Your task to perform on an android device: Go to calendar. Show me events next week Image 0: 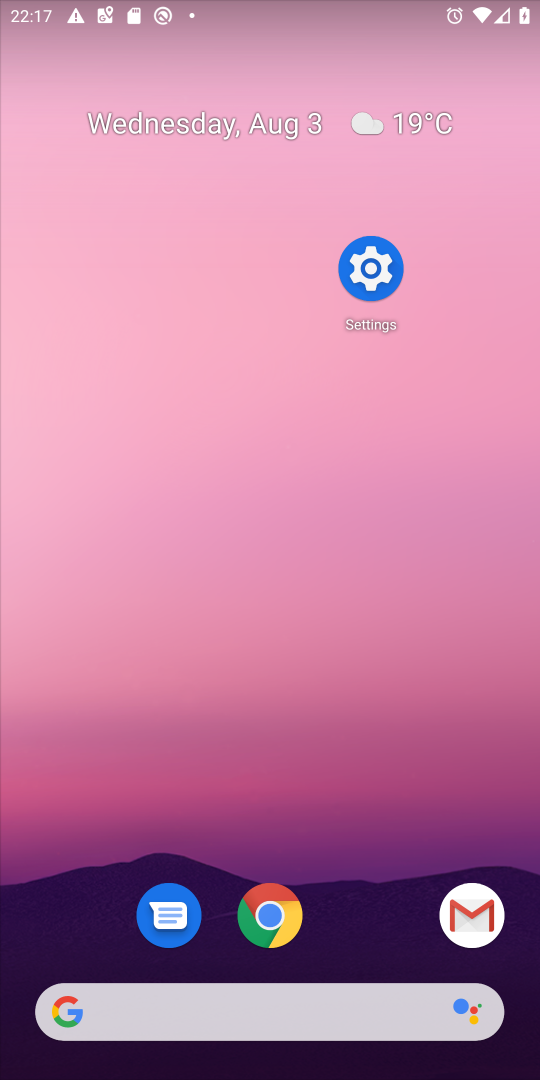
Step 0: press home button
Your task to perform on an android device: Go to calendar. Show me events next week Image 1: 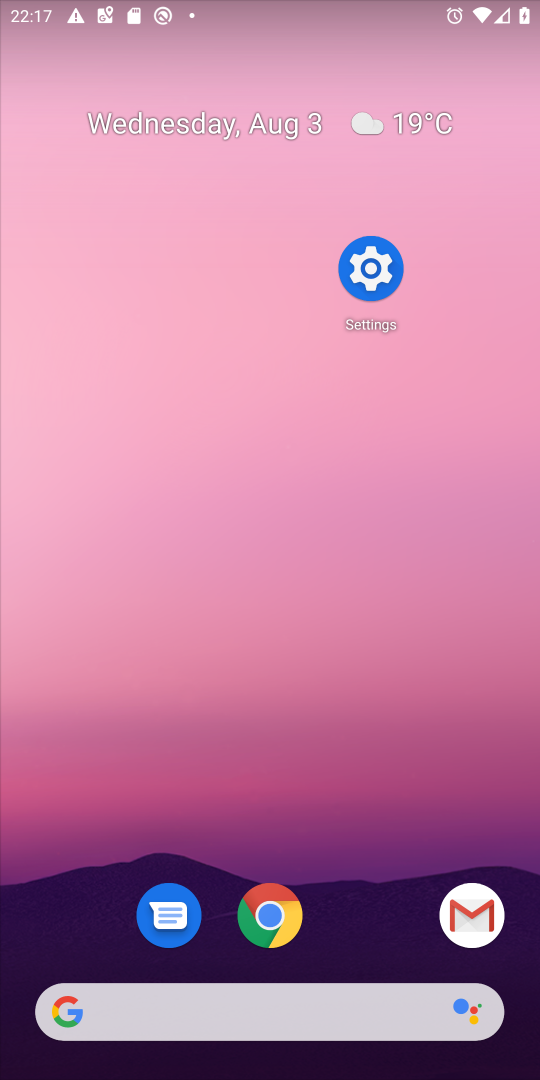
Step 1: drag from (284, 1031) to (255, 269)
Your task to perform on an android device: Go to calendar. Show me events next week Image 2: 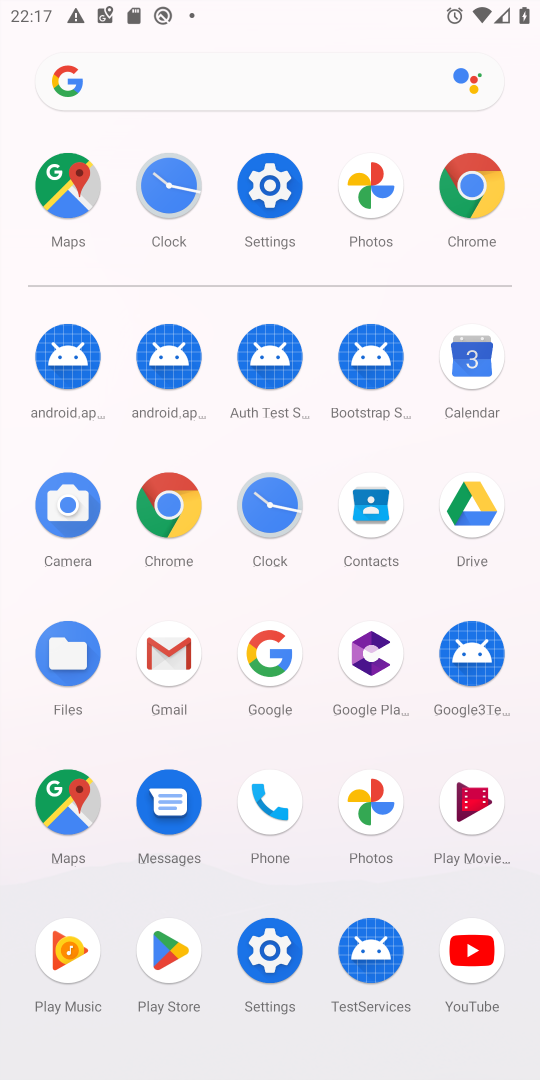
Step 2: click (484, 368)
Your task to perform on an android device: Go to calendar. Show me events next week Image 3: 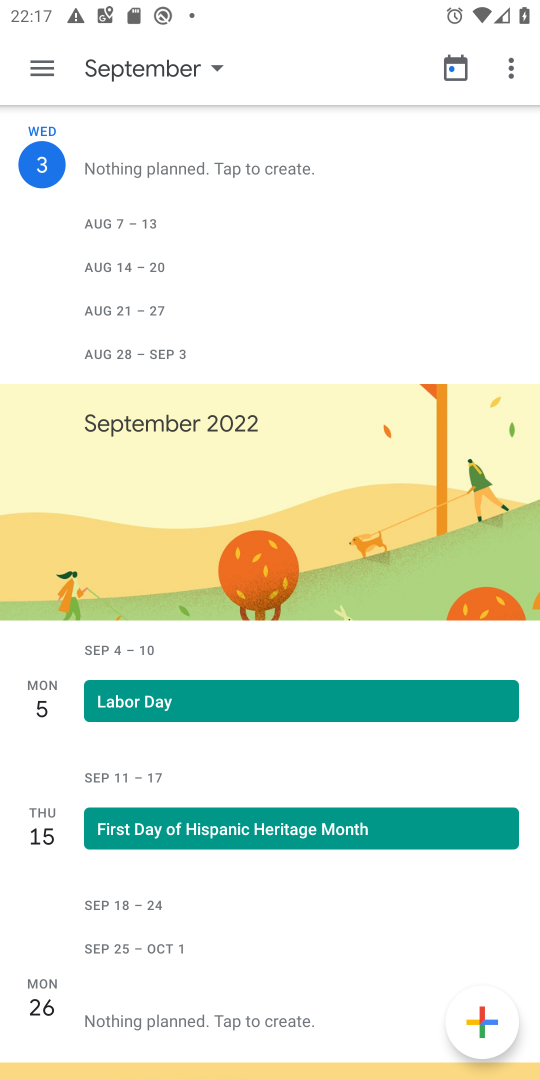
Step 3: click (47, 78)
Your task to perform on an android device: Go to calendar. Show me events next week Image 4: 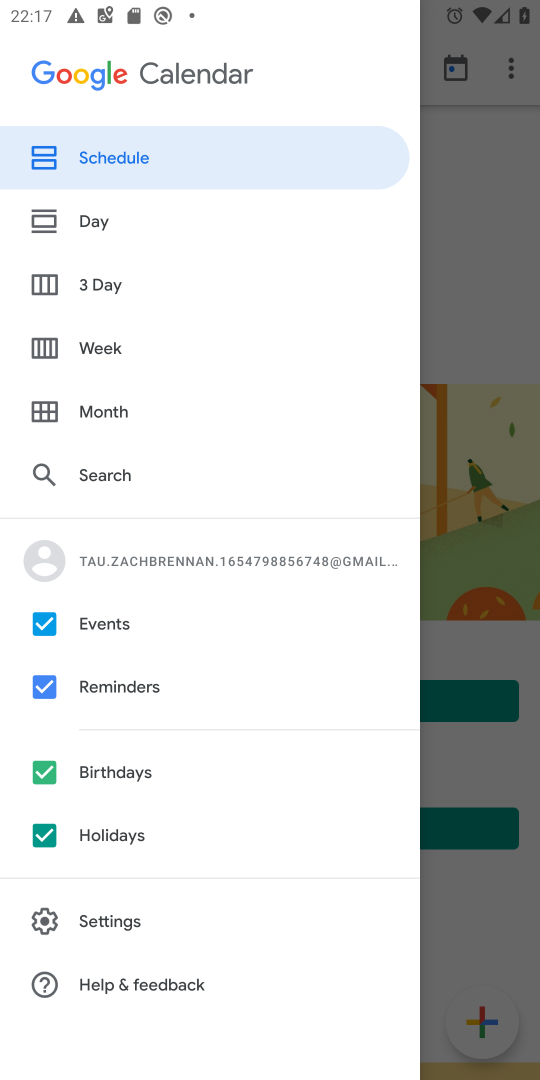
Step 4: click (112, 418)
Your task to perform on an android device: Go to calendar. Show me events next week Image 5: 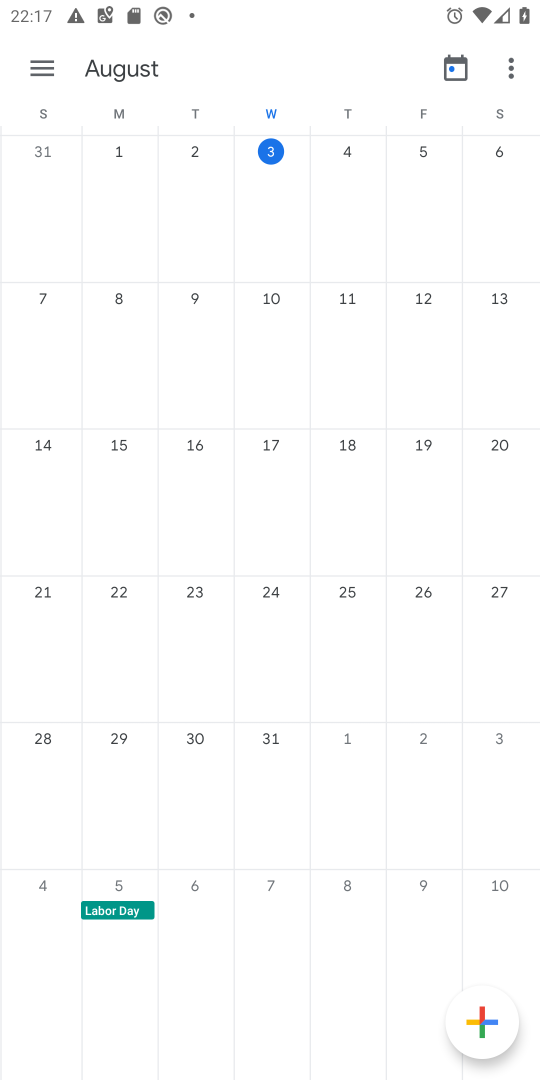
Step 5: click (123, 374)
Your task to perform on an android device: Go to calendar. Show me events next week Image 6: 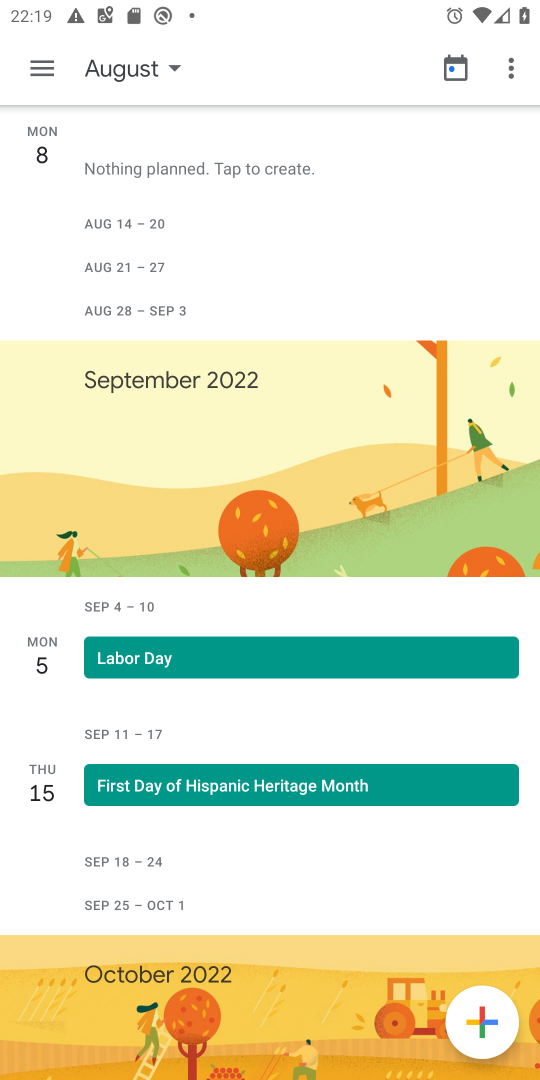
Step 6: task complete